Your task to perform on an android device: check data usage Image 0: 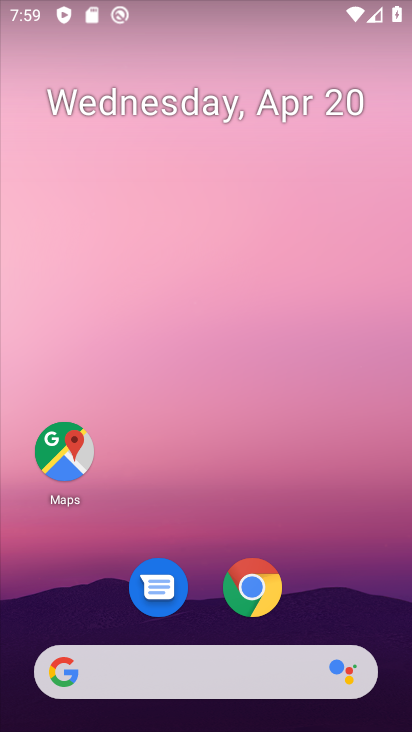
Step 0: drag from (353, 588) to (356, 186)
Your task to perform on an android device: check data usage Image 1: 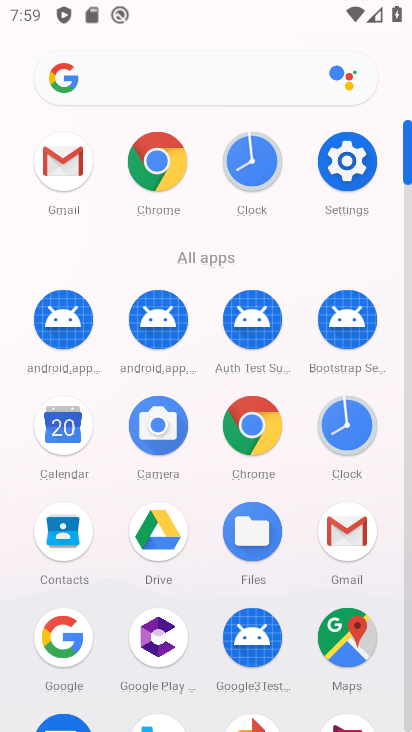
Step 1: click (360, 174)
Your task to perform on an android device: check data usage Image 2: 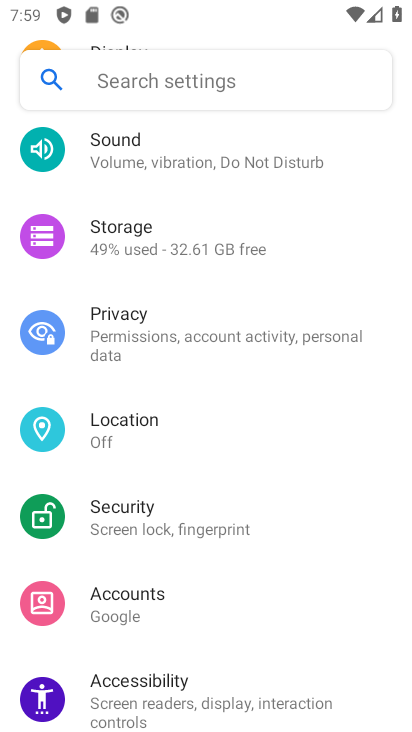
Step 2: drag from (352, 549) to (370, 404)
Your task to perform on an android device: check data usage Image 3: 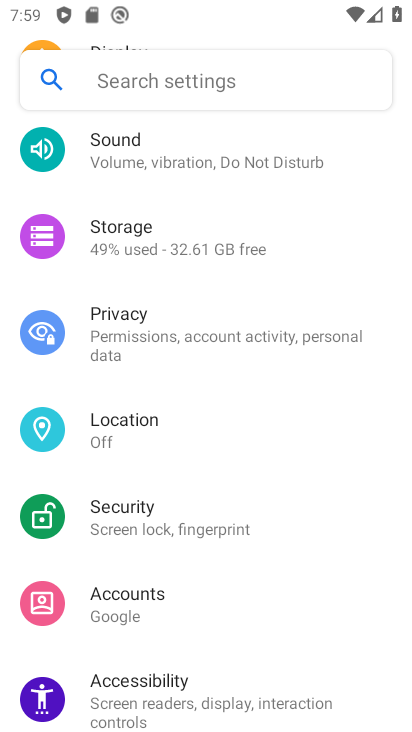
Step 3: drag from (320, 481) to (332, 275)
Your task to perform on an android device: check data usage Image 4: 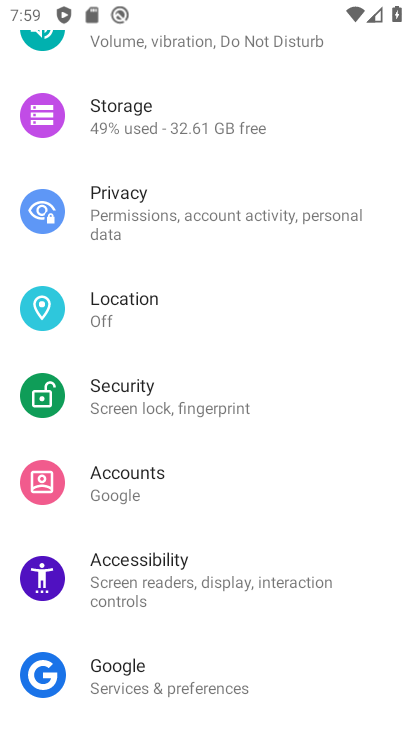
Step 4: drag from (356, 621) to (366, 434)
Your task to perform on an android device: check data usage Image 5: 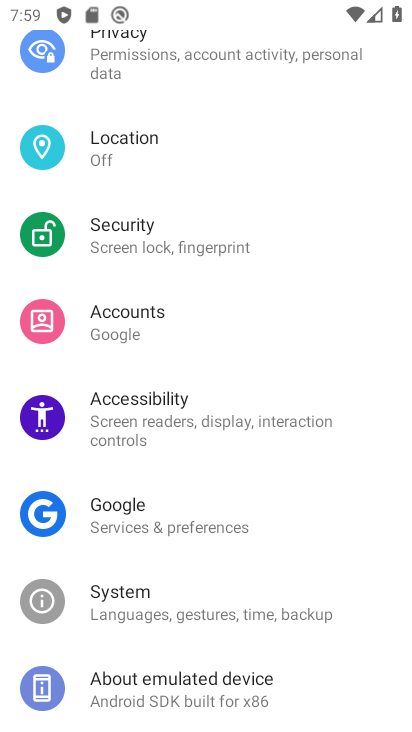
Step 5: drag from (373, 621) to (363, 457)
Your task to perform on an android device: check data usage Image 6: 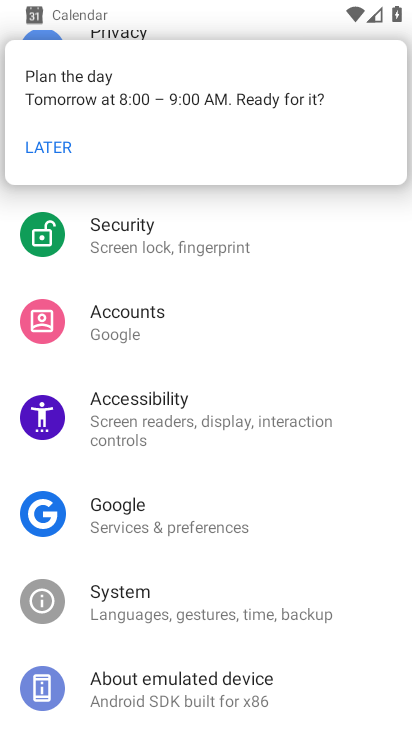
Step 6: drag from (379, 333) to (373, 510)
Your task to perform on an android device: check data usage Image 7: 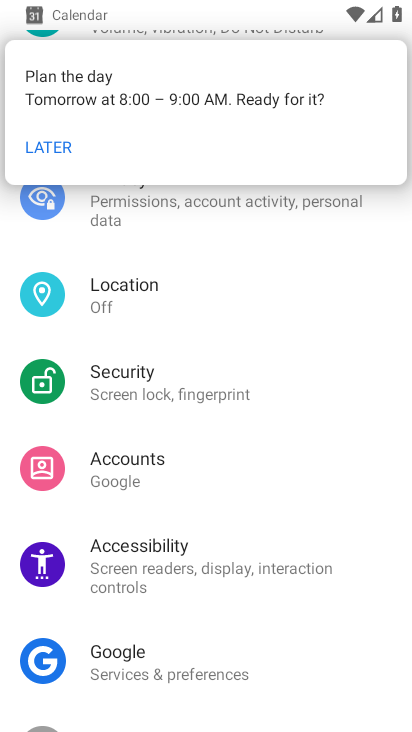
Step 7: drag from (364, 340) to (358, 461)
Your task to perform on an android device: check data usage Image 8: 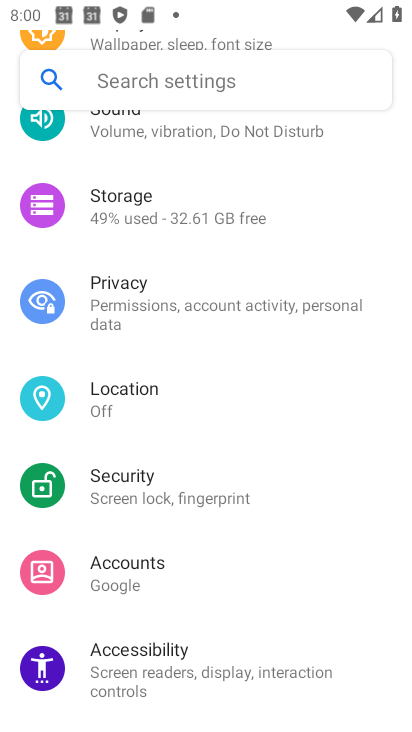
Step 8: drag from (359, 354) to (361, 527)
Your task to perform on an android device: check data usage Image 9: 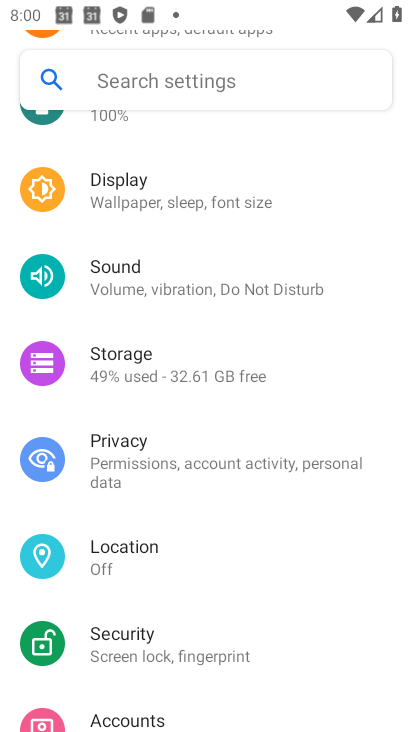
Step 9: drag from (376, 295) to (374, 525)
Your task to perform on an android device: check data usage Image 10: 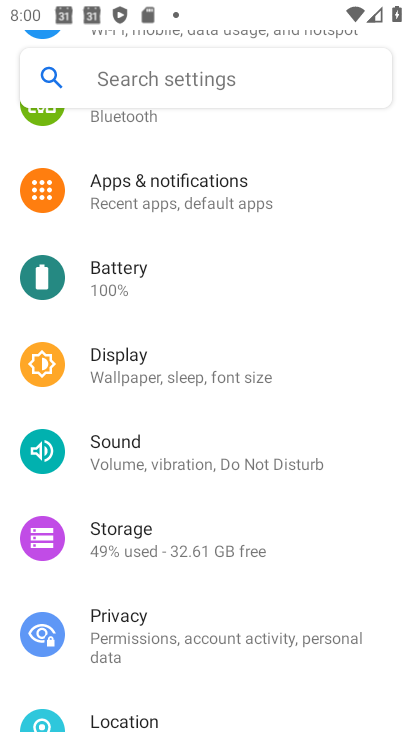
Step 10: drag from (364, 270) to (361, 476)
Your task to perform on an android device: check data usage Image 11: 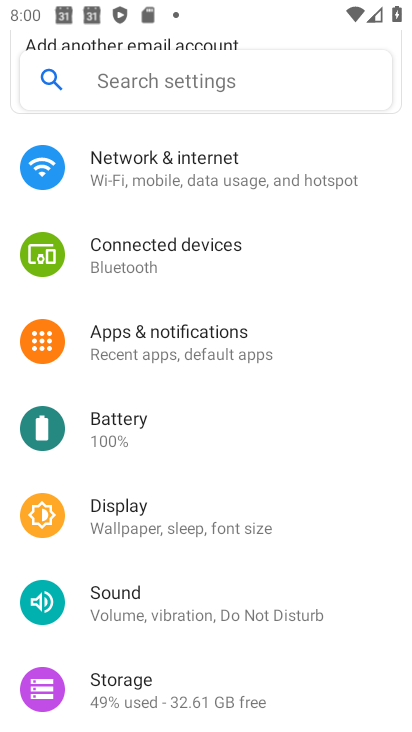
Step 11: drag from (347, 270) to (349, 393)
Your task to perform on an android device: check data usage Image 12: 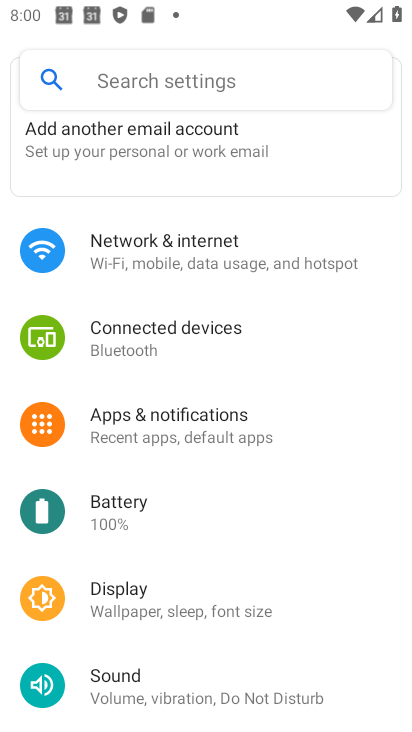
Step 12: click (247, 257)
Your task to perform on an android device: check data usage Image 13: 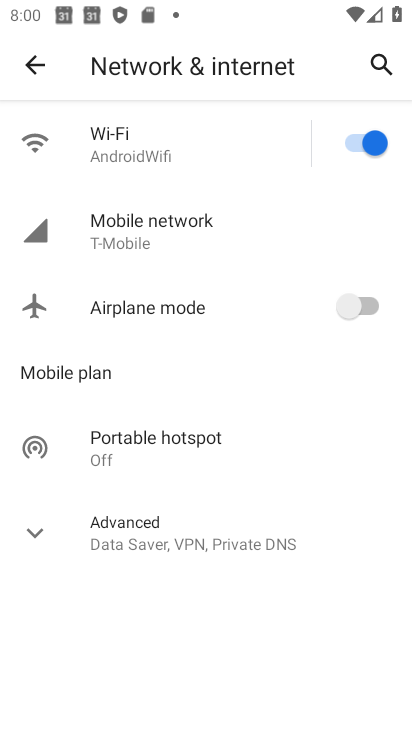
Step 13: click (139, 237)
Your task to perform on an android device: check data usage Image 14: 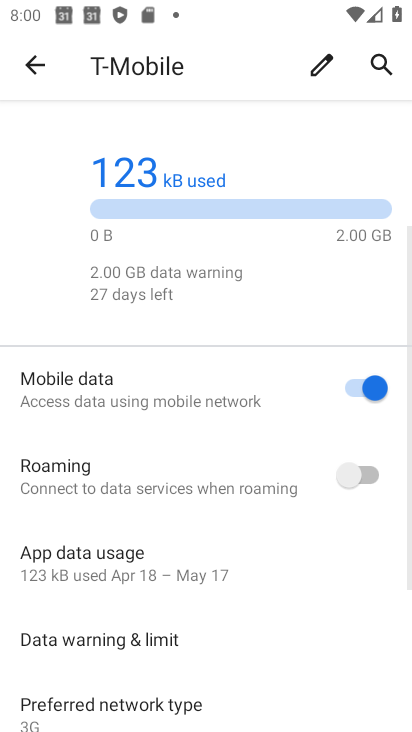
Step 14: drag from (279, 578) to (287, 350)
Your task to perform on an android device: check data usage Image 15: 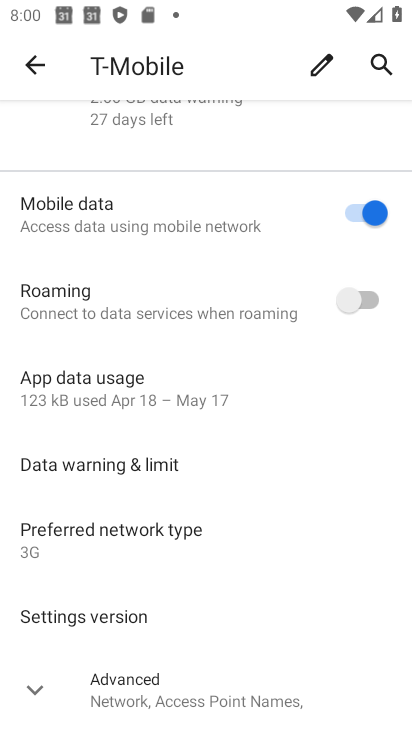
Step 15: click (105, 392)
Your task to perform on an android device: check data usage Image 16: 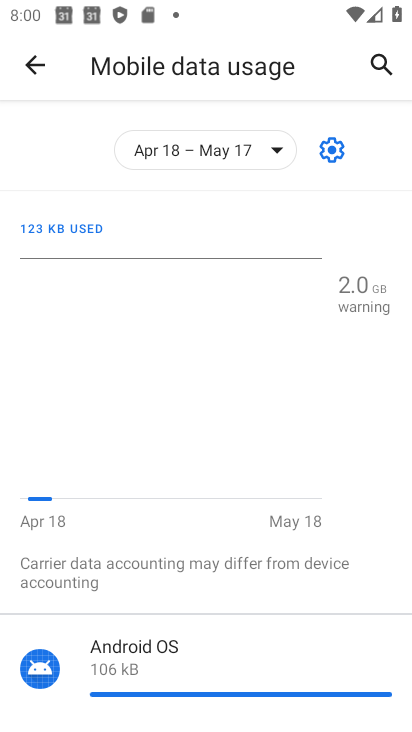
Step 16: task complete